Your task to perform on an android device: When is my next appointment? Image 0: 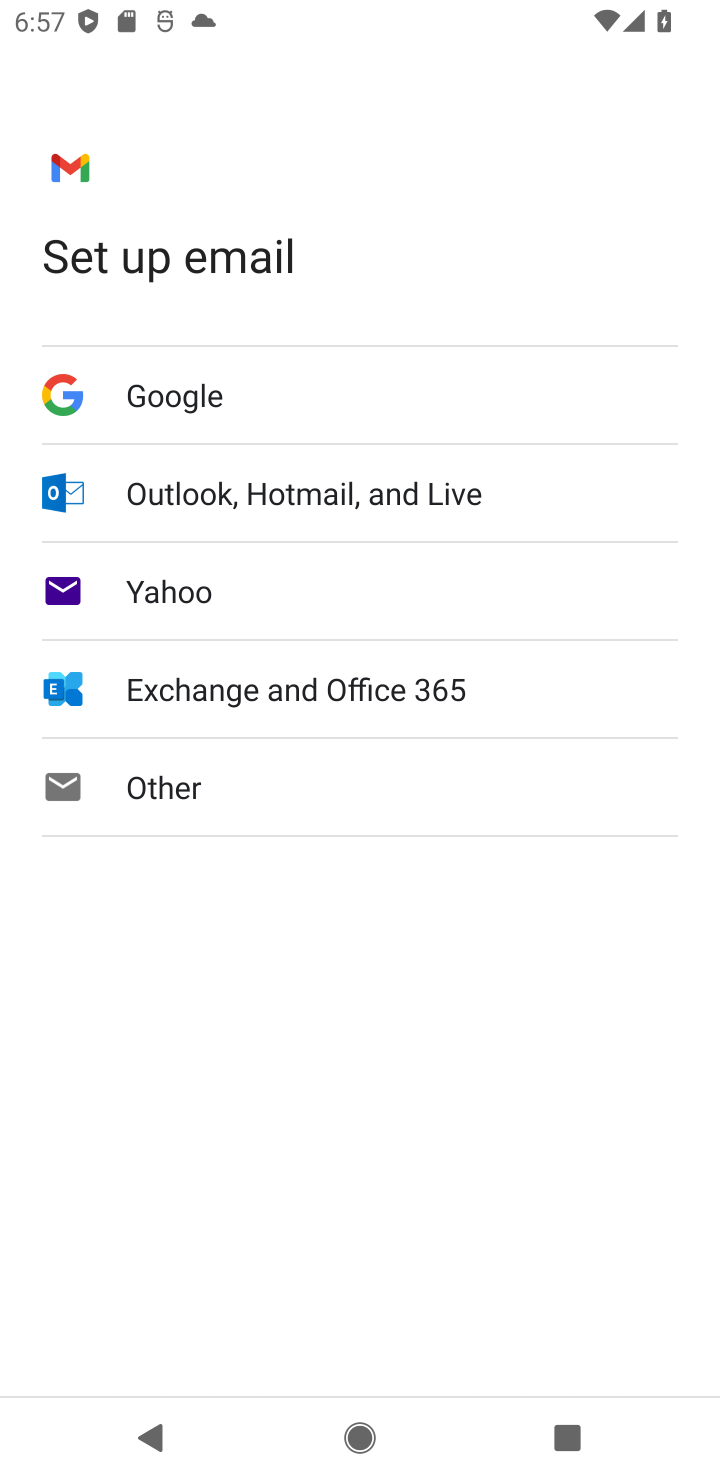
Step 0: press home button
Your task to perform on an android device: When is my next appointment? Image 1: 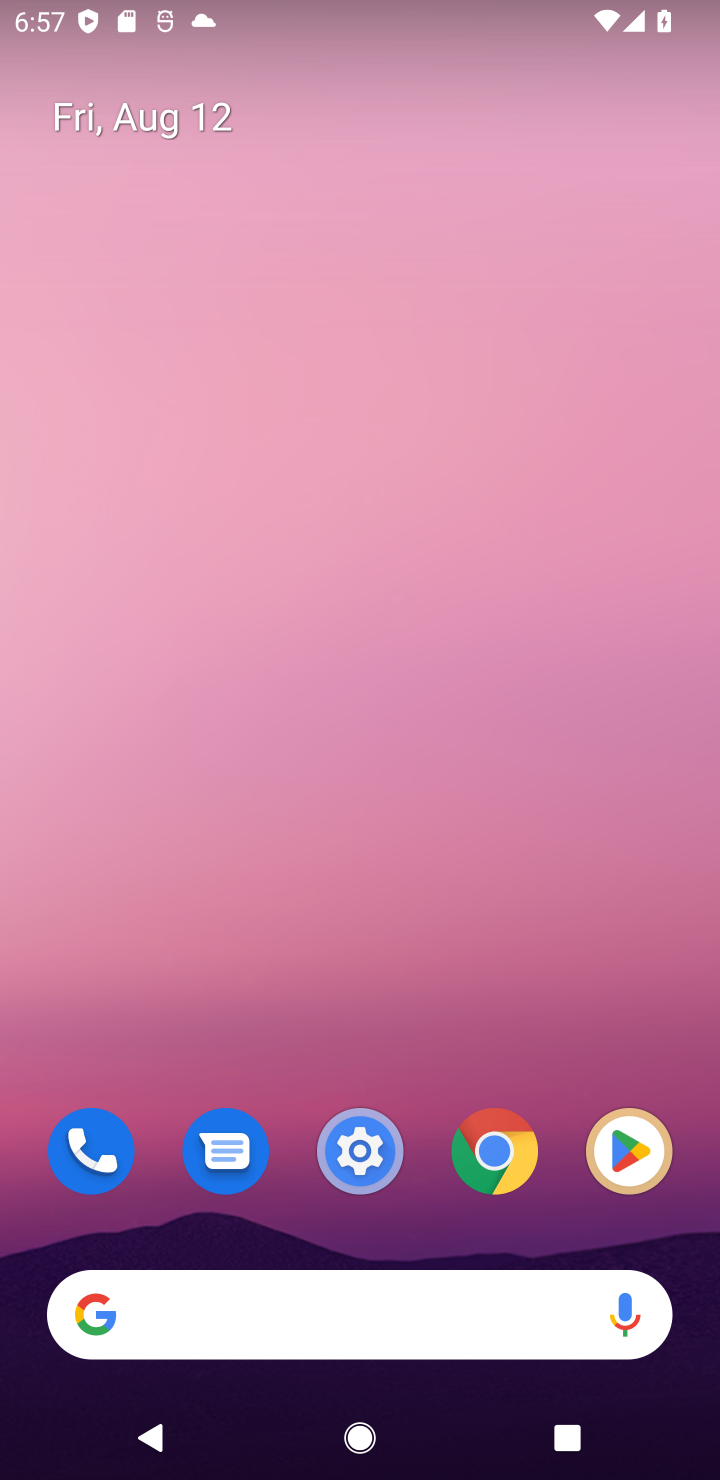
Step 1: drag from (476, 941) to (427, 45)
Your task to perform on an android device: When is my next appointment? Image 2: 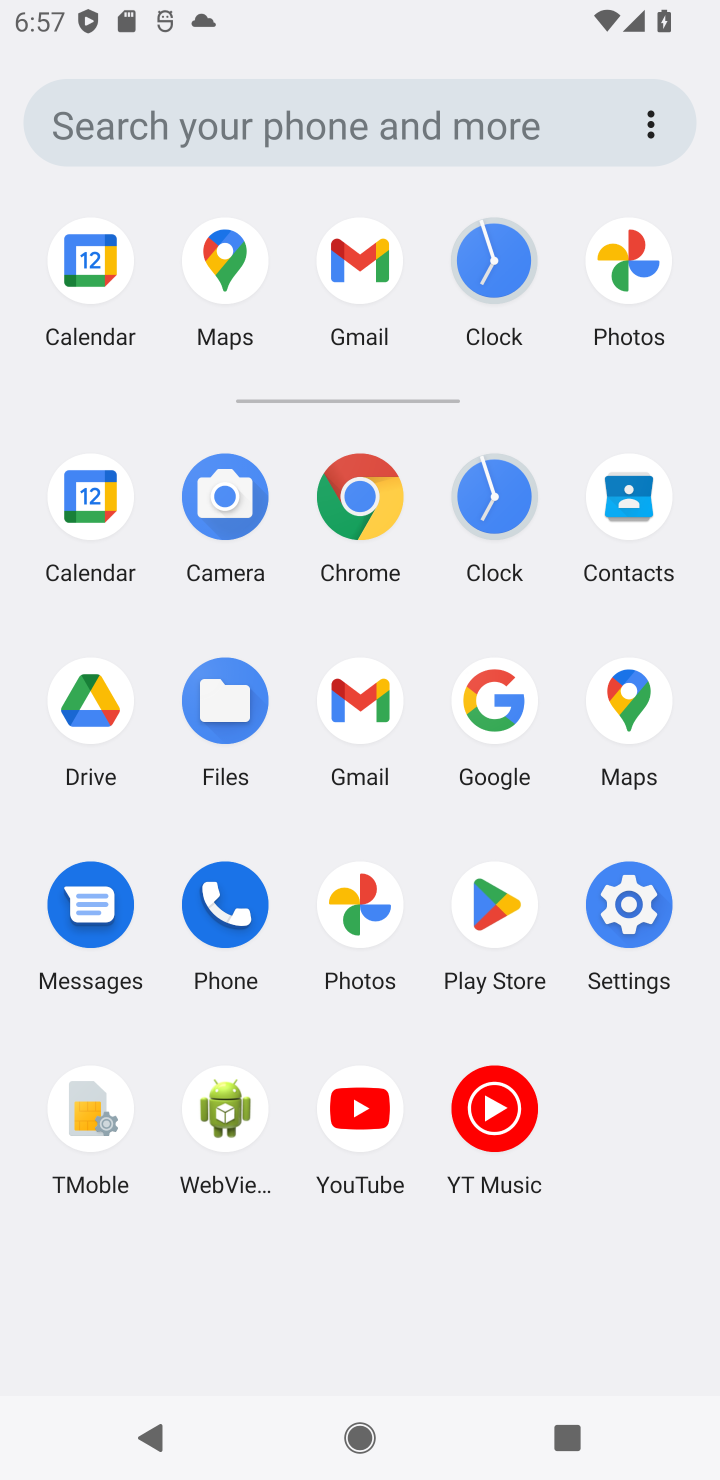
Step 2: click (79, 491)
Your task to perform on an android device: When is my next appointment? Image 3: 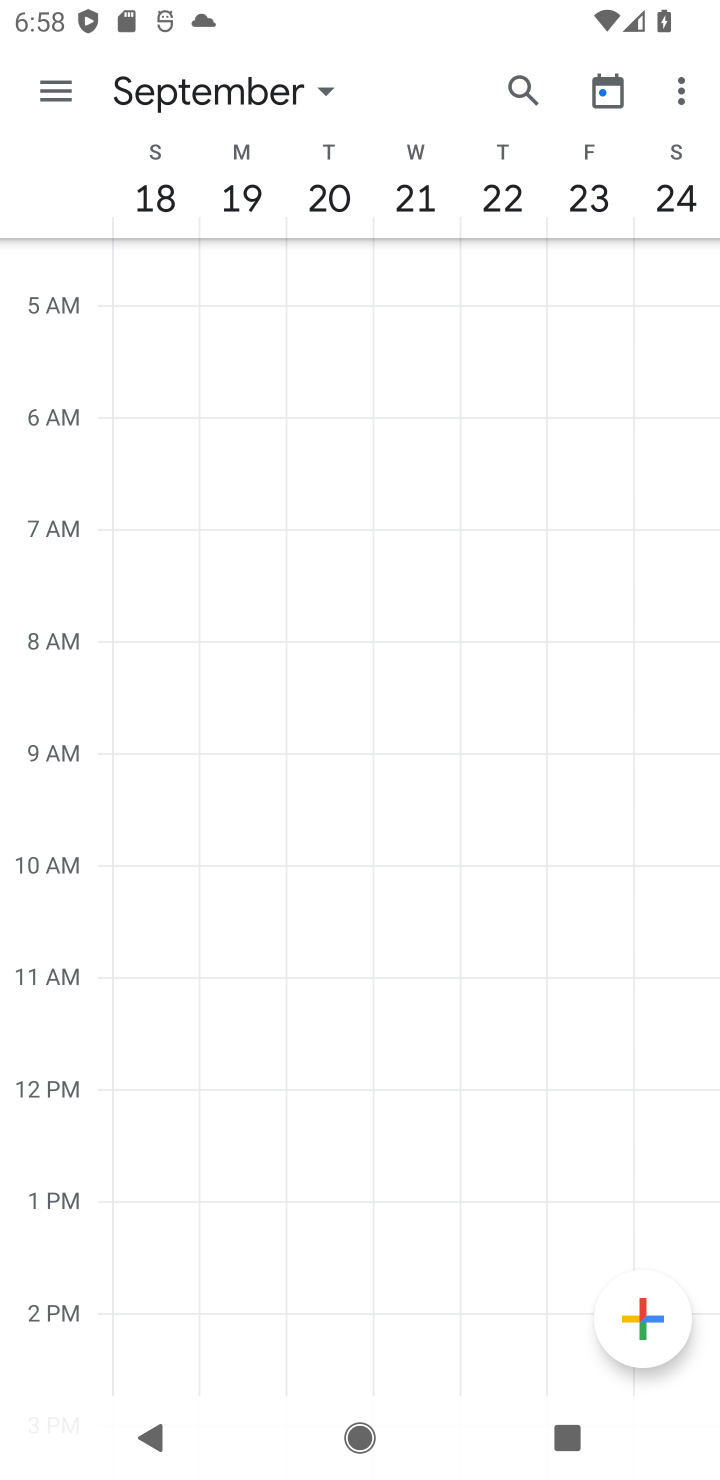
Step 3: click (219, 85)
Your task to perform on an android device: When is my next appointment? Image 4: 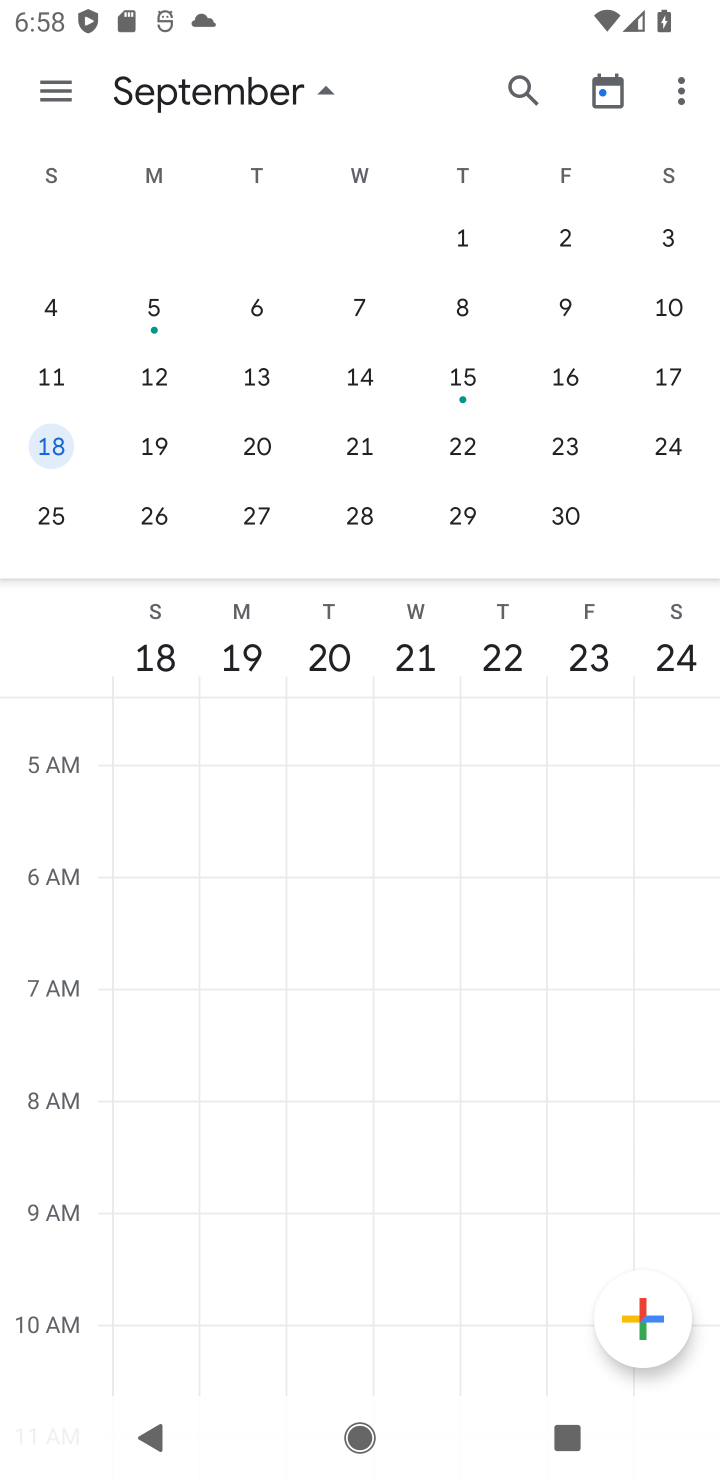
Step 4: drag from (56, 392) to (642, 376)
Your task to perform on an android device: When is my next appointment? Image 5: 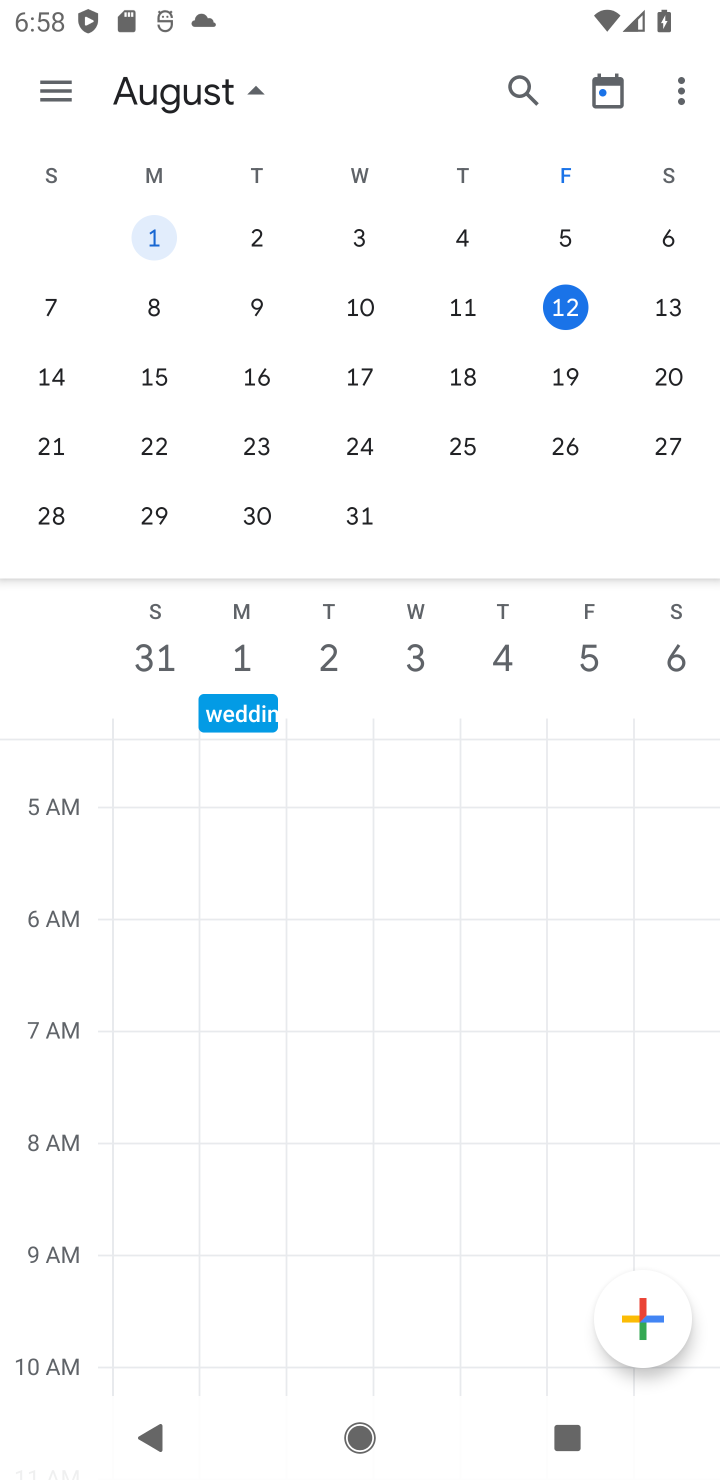
Step 5: click (556, 306)
Your task to perform on an android device: When is my next appointment? Image 6: 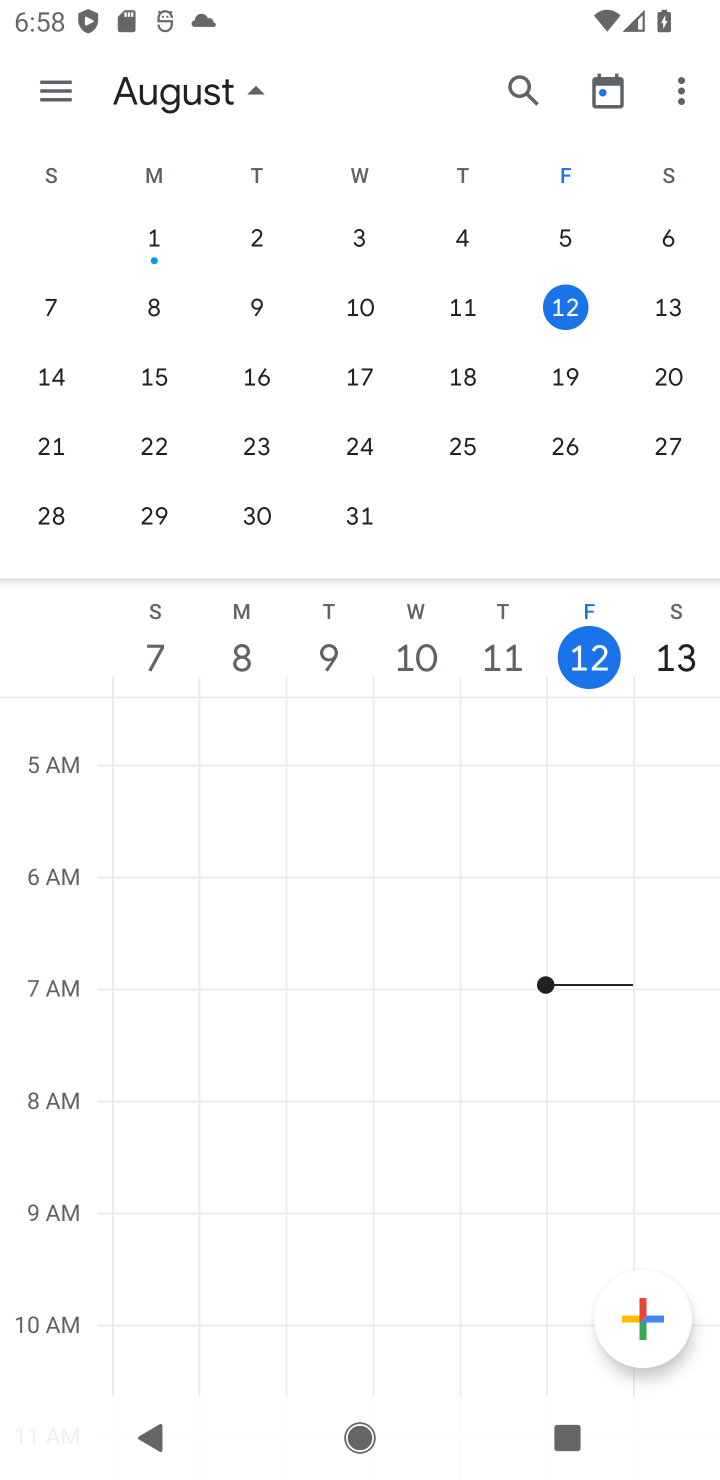
Step 6: click (695, 658)
Your task to perform on an android device: When is my next appointment? Image 7: 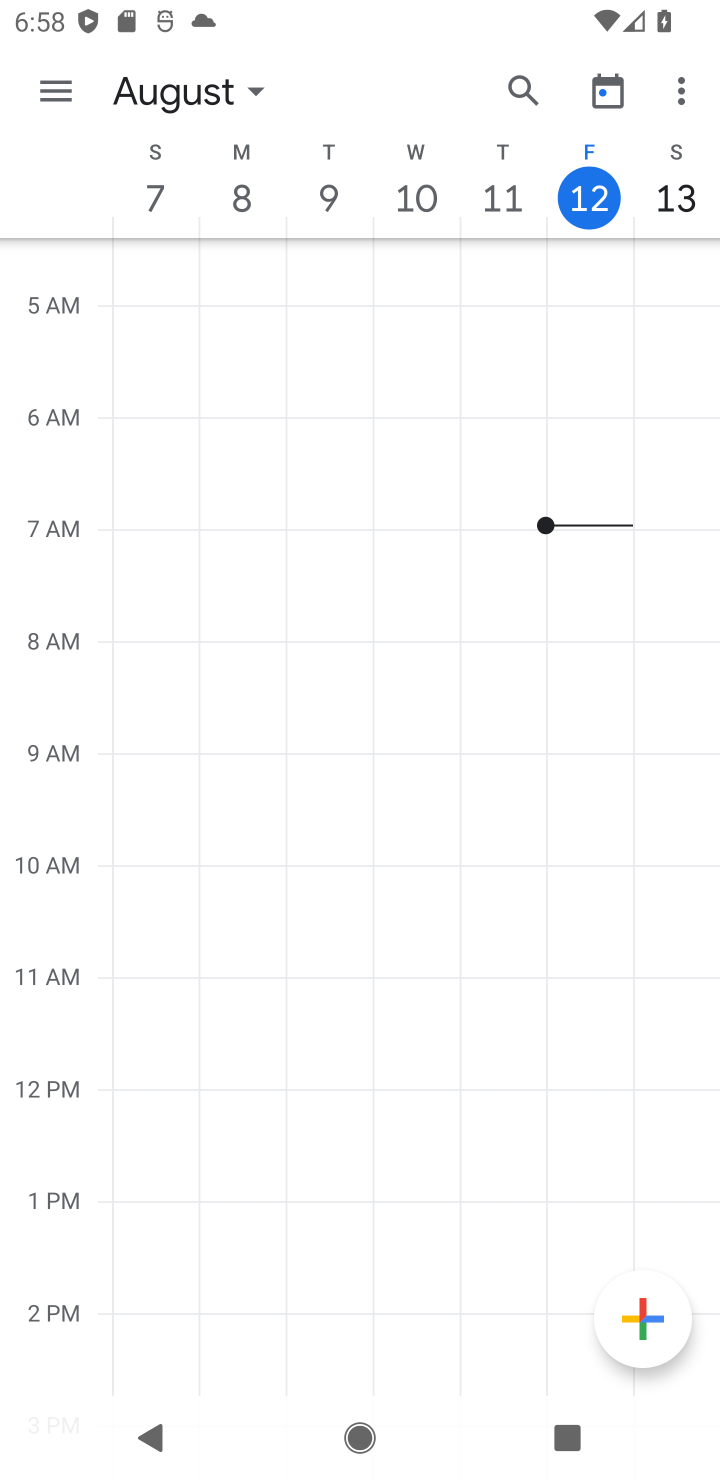
Step 7: click (82, 80)
Your task to perform on an android device: When is my next appointment? Image 8: 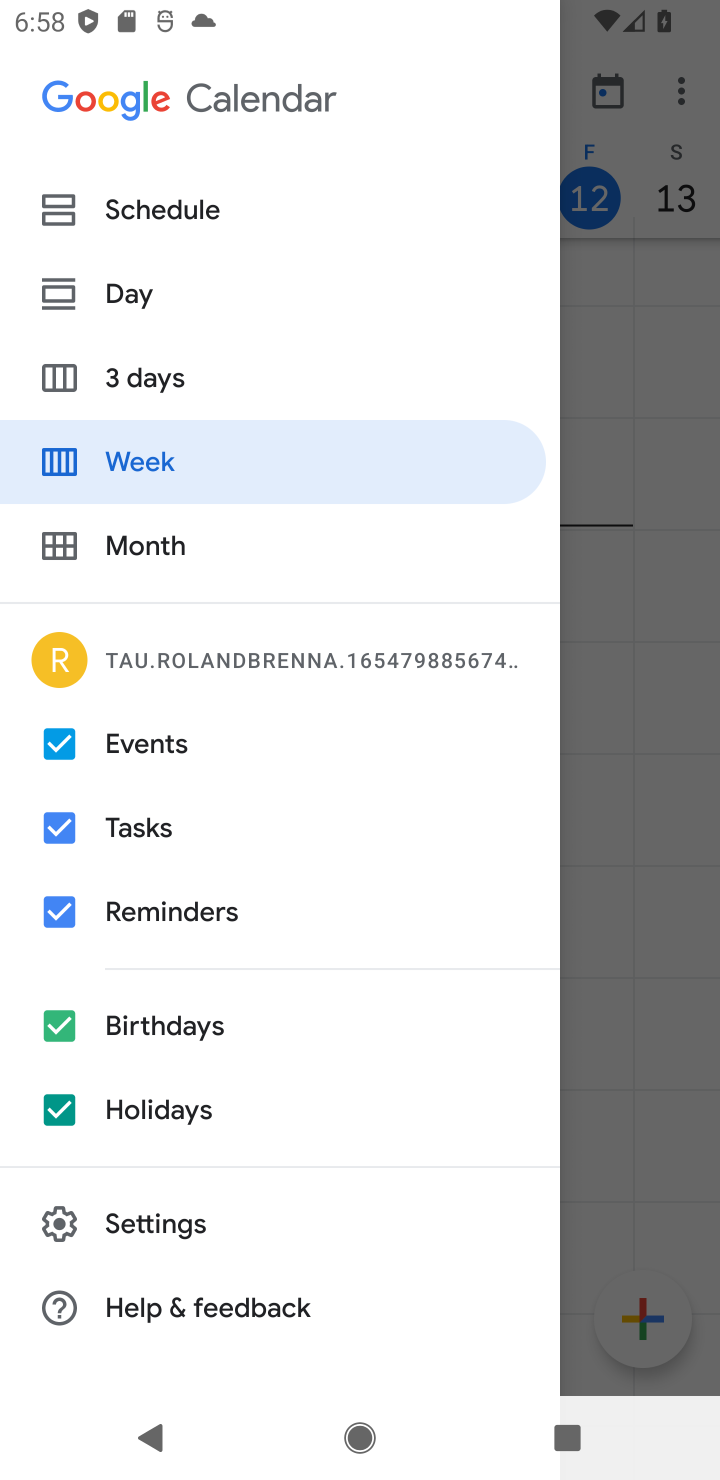
Step 8: click (188, 394)
Your task to perform on an android device: When is my next appointment? Image 9: 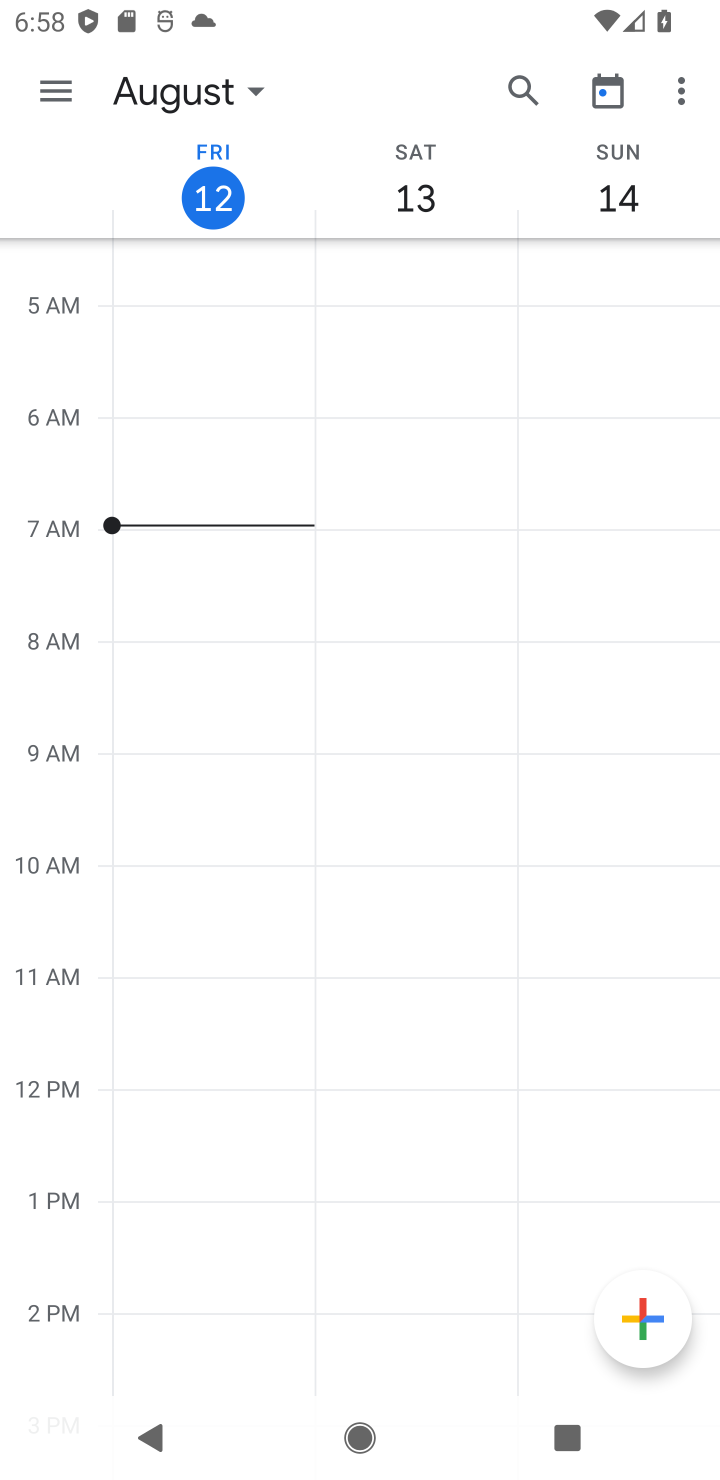
Step 9: task complete